Your task to perform on an android device: toggle wifi Image 0: 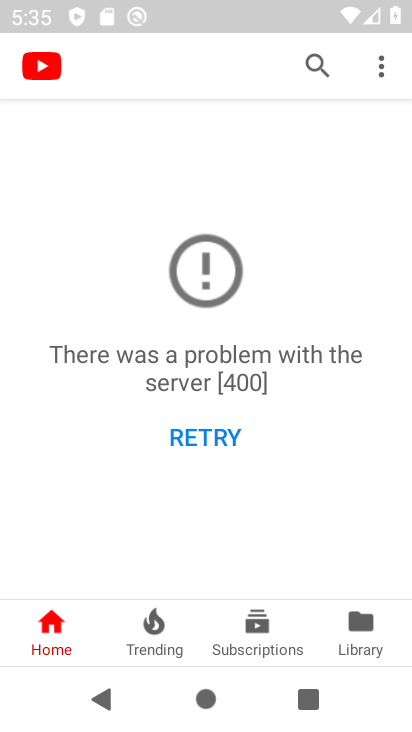
Step 0: press home button
Your task to perform on an android device: toggle wifi Image 1: 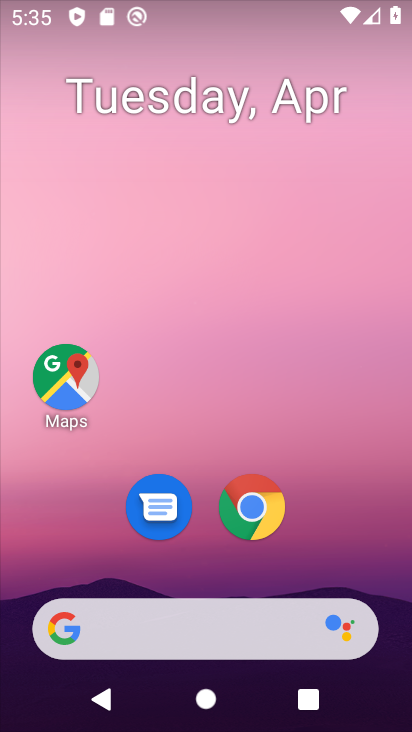
Step 1: drag from (349, 475) to (358, 72)
Your task to perform on an android device: toggle wifi Image 2: 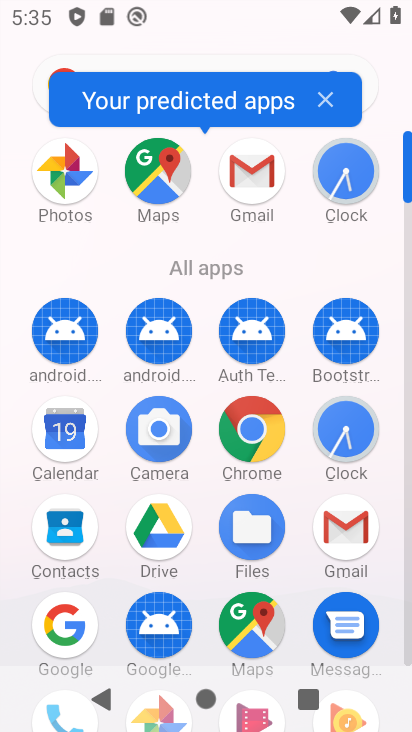
Step 2: drag from (303, 496) to (326, 142)
Your task to perform on an android device: toggle wifi Image 3: 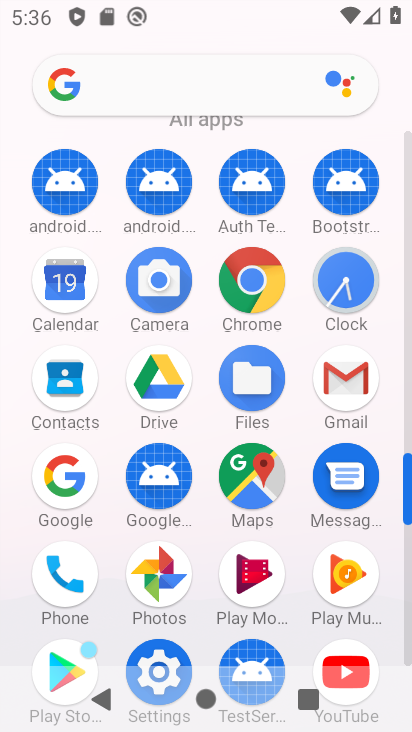
Step 3: drag from (191, 600) to (206, 336)
Your task to perform on an android device: toggle wifi Image 4: 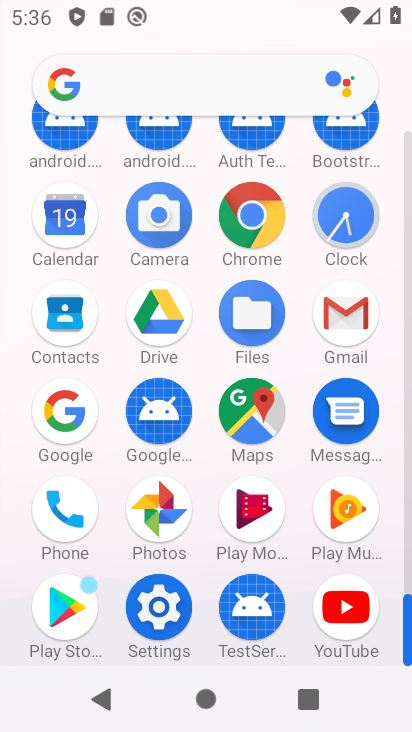
Step 4: click (158, 603)
Your task to perform on an android device: toggle wifi Image 5: 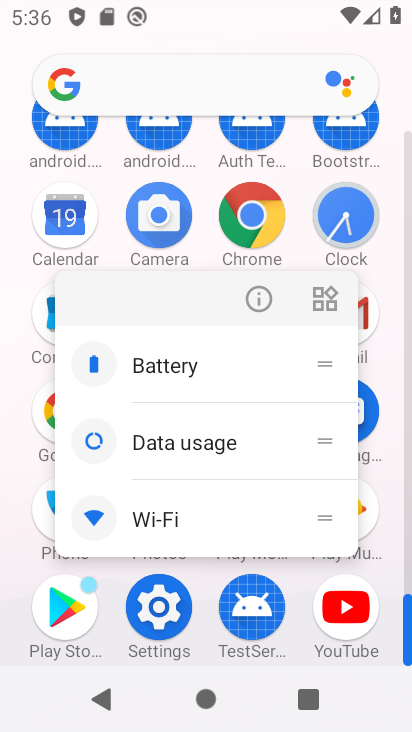
Step 5: click (162, 611)
Your task to perform on an android device: toggle wifi Image 6: 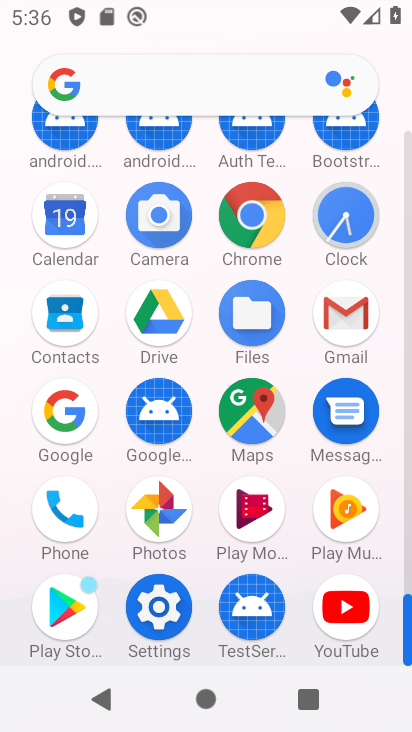
Step 6: drag from (269, 27) to (244, 514)
Your task to perform on an android device: toggle wifi Image 7: 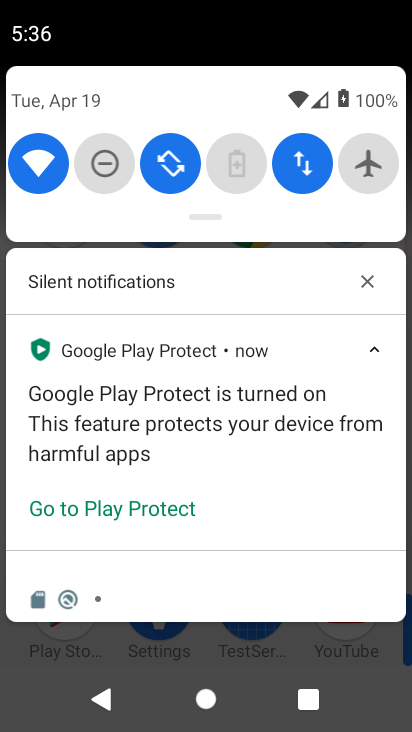
Step 7: click (43, 156)
Your task to perform on an android device: toggle wifi Image 8: 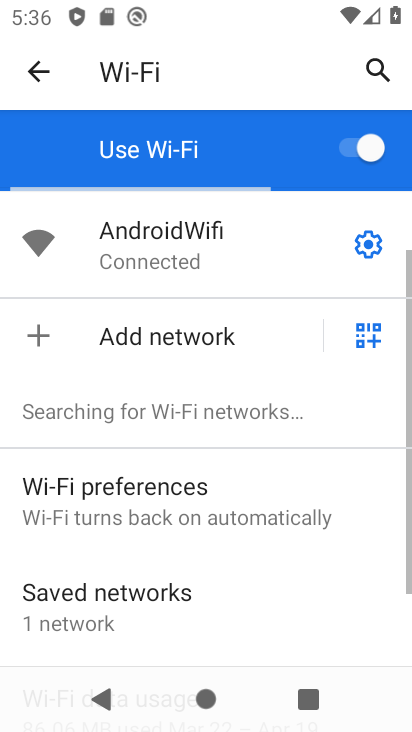
Step 8: click (367, 151)
Your task to perform on an android device: toggle wifi Image 9: 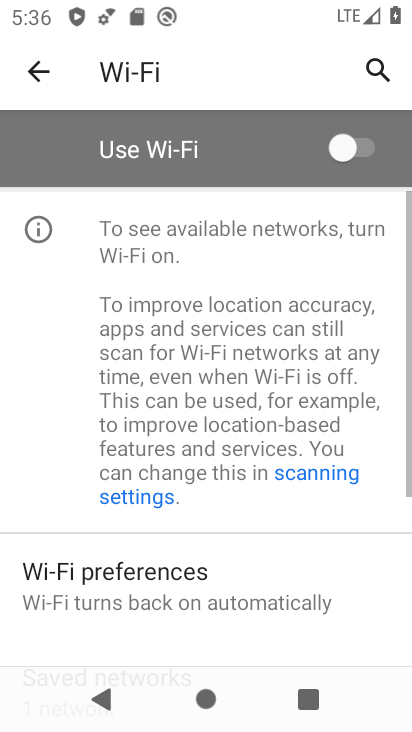
Step 9: task complete